Your task to perform on an android device: Search for seafood restaurants on Google Maps Image 0: 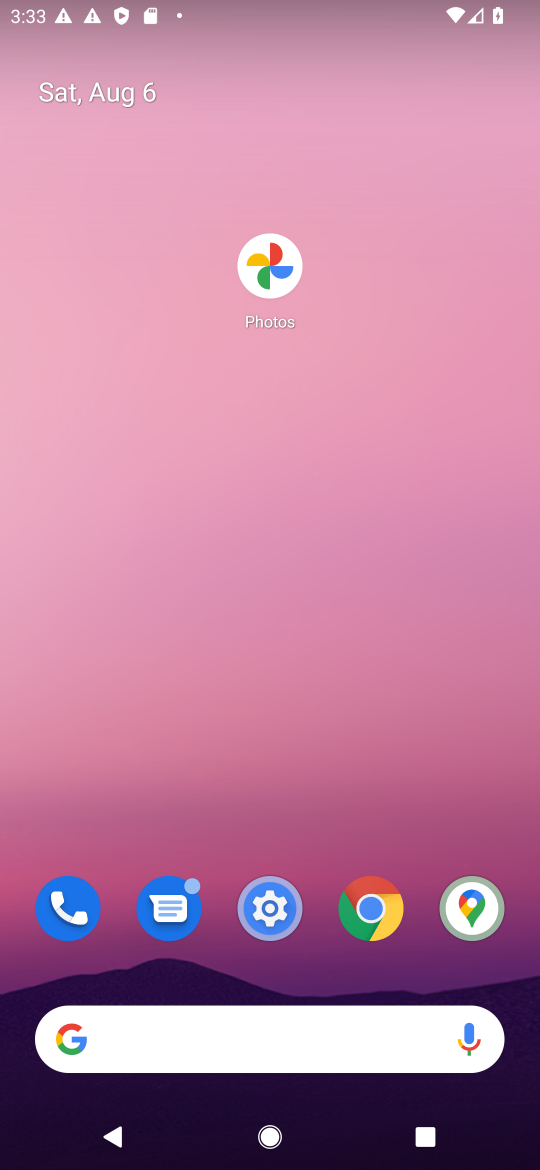
Step 0: click (472, 914)
Your task to perform on an android device: Search for seafood restaurants on Google Maps Image 1: 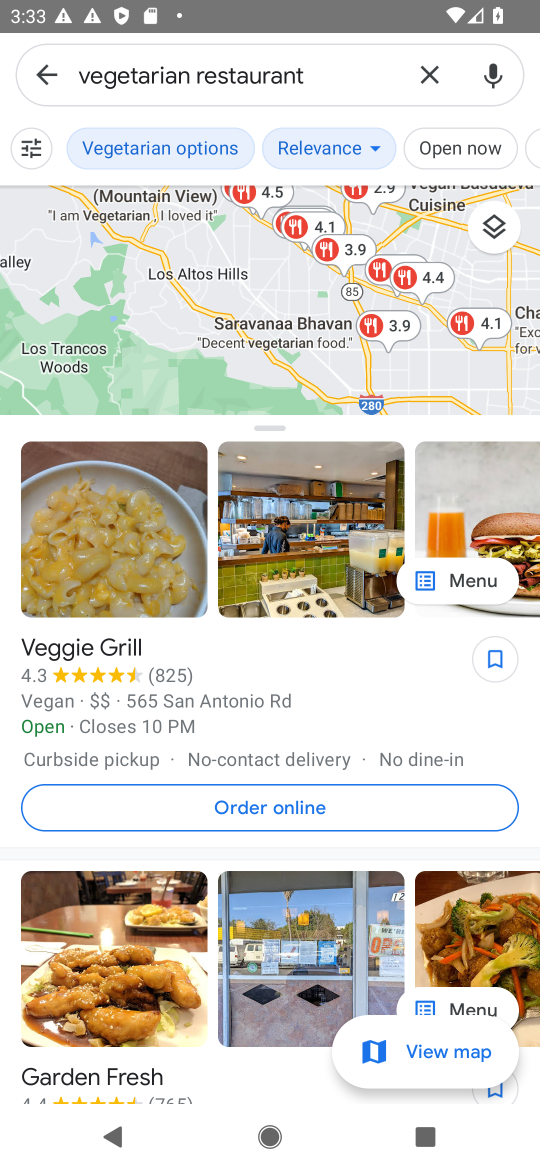
Step 1: click (148, 72)
Your task to perform on an android device: Search for seafood restaurants on Google Maps Image 2: 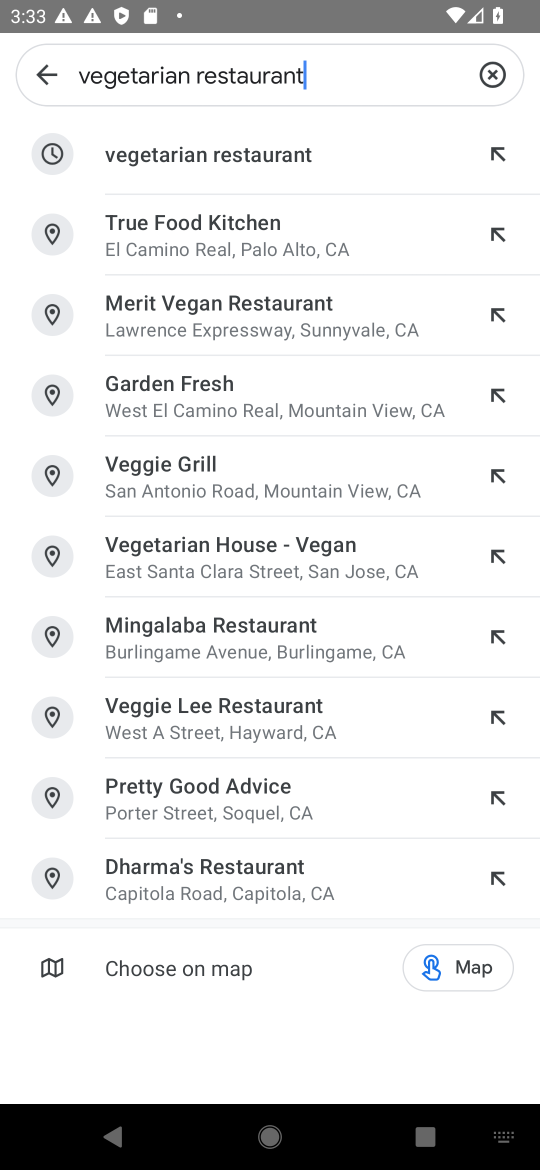
Step 2: click (147, 76)
Your task to perform on an android device: Search for seafood restaurants on Google Maps Image 3: 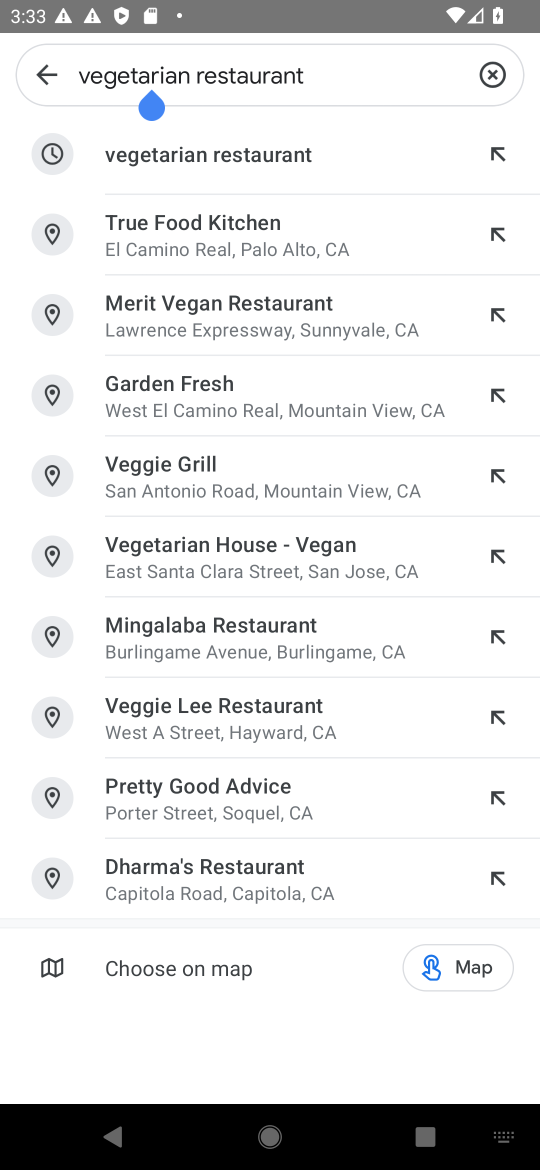
Step 3: click (145, 77)
Your task to perform on an android device: Search for seafood restaurants on Google Maps Image 4: 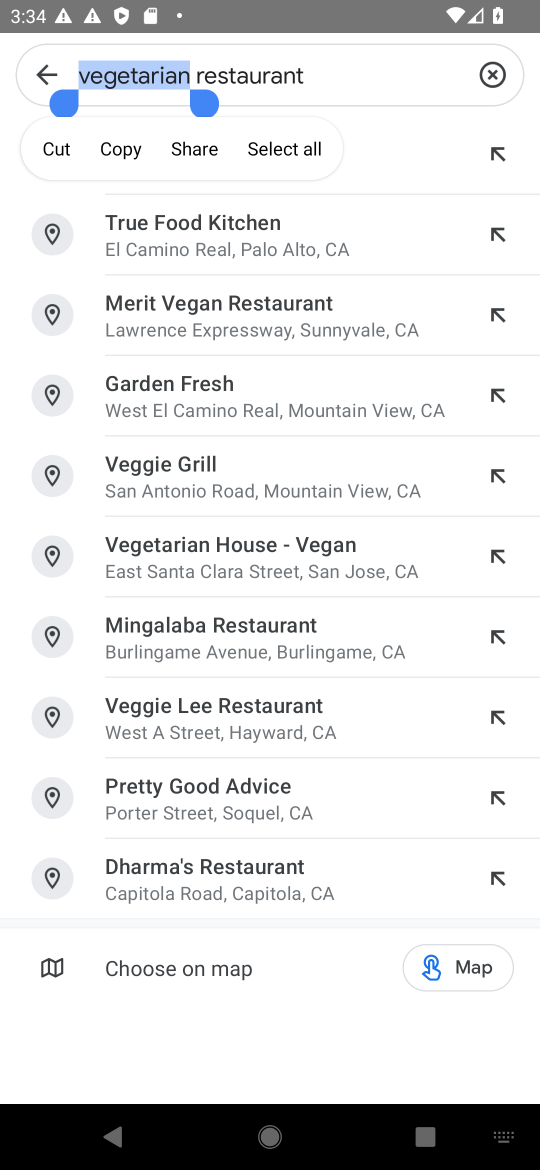
Step 4: type "seafood"
Your task to perform on an android device: Search for seafood restaurants on Google Maps Image 5: 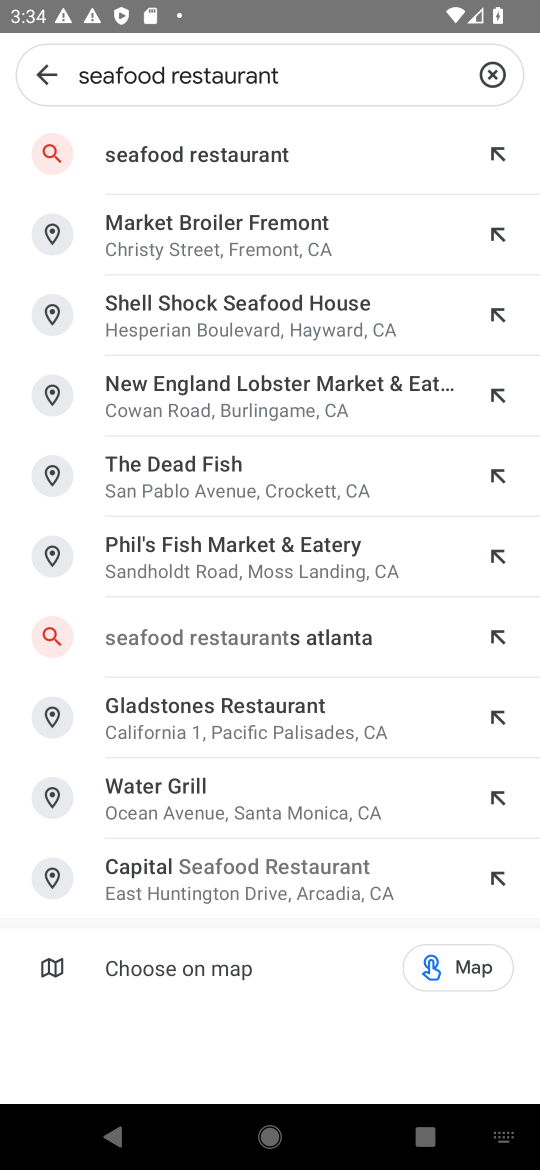
Step 5: click (224, 148)
Your task to perform on an android device: Search for seafood restaurants on Google Maps Image 6: 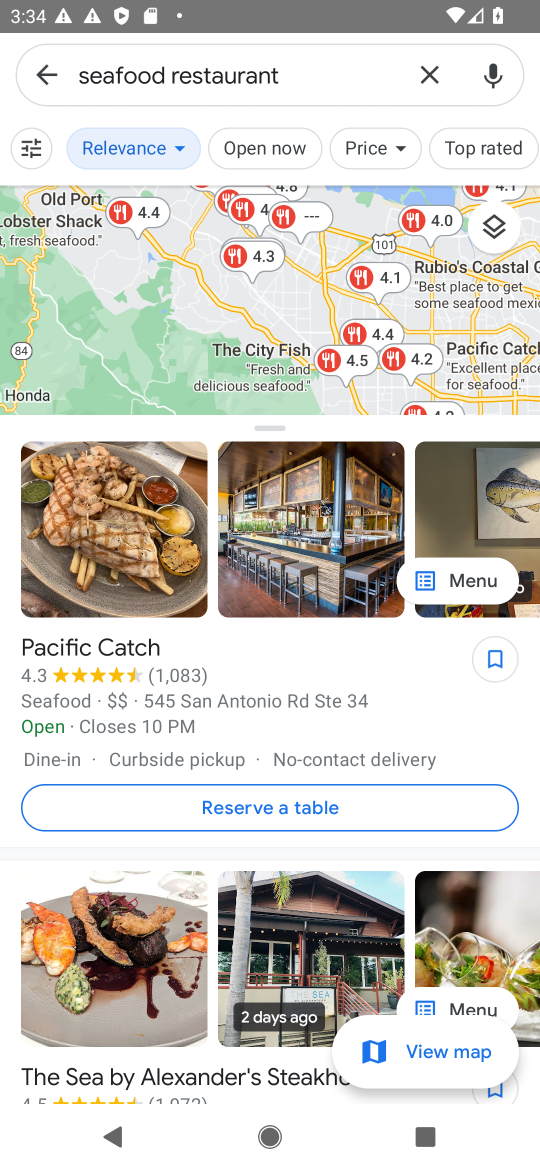
Step 6: task complete